Your task to perform on an android device: Open eBay Image 0: 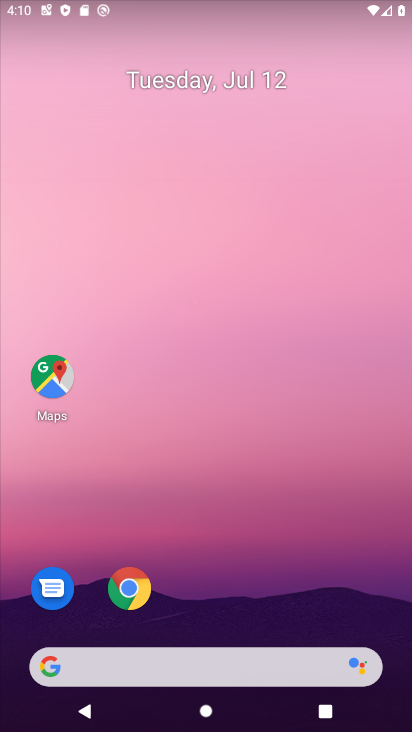
Step 0: click (145, 585)
Your task to perform on an android device: Open eBay Image 1: 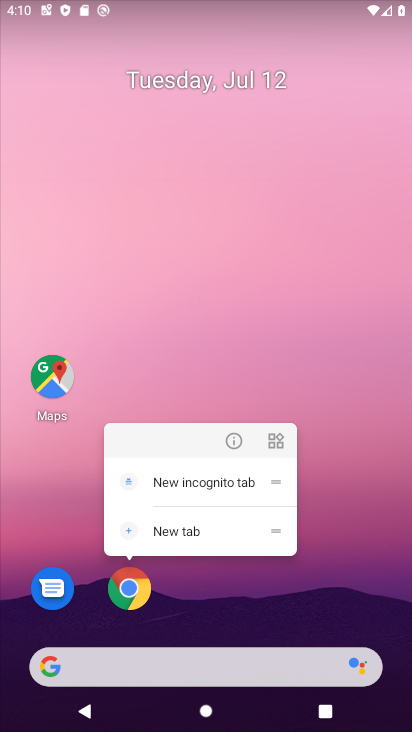
Step 1: click (132, 590)
Your task to perform on an android device: Open eBay Image 2: 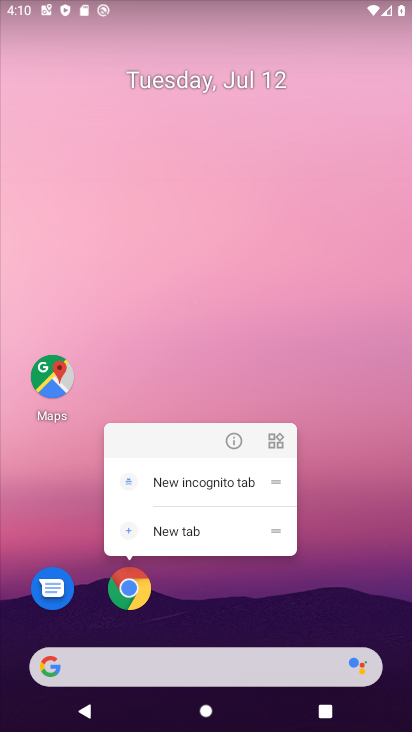
Step 2: click (132, 590)
Your task to perform on an android device: Open eBay Image 3: 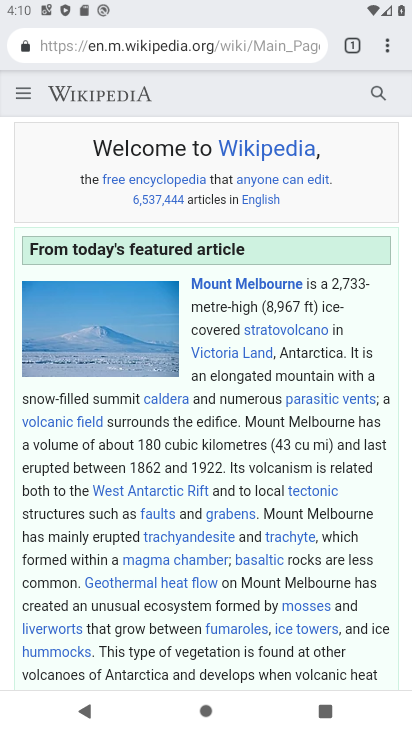
Step 3: click (355, 46)
Your task to perform on an android device: Open eBay Image 4: 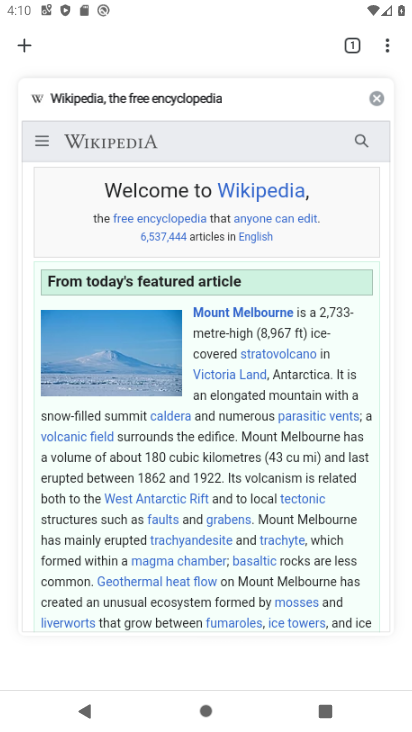
Step 4: click (25, 45)
Your task to perform on an android device: Open eBay Image 5: 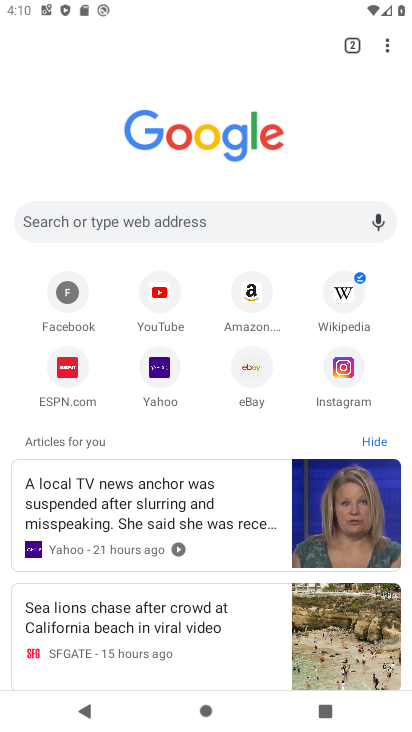
Step 5: click (259, 363)
Your task to perform on an android device: Open eBay Image 6: 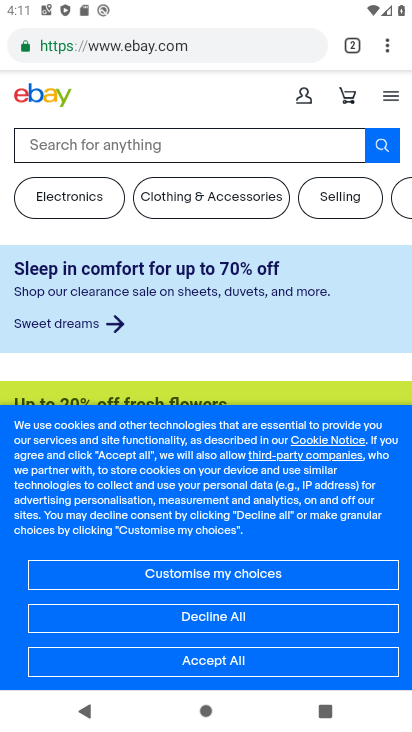
Step 6: task complete